Your task to perform on an android device: See recent photos Image 0: 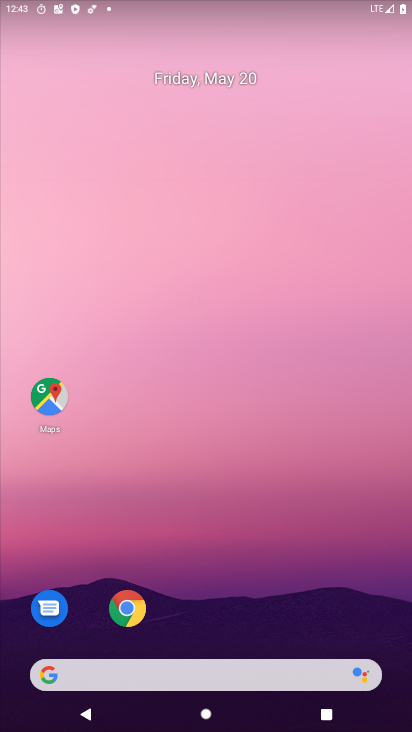
Step 0: drag from (340, 623) to (322, 192)
Your task to perform on an android device: See recent photos Image 1: 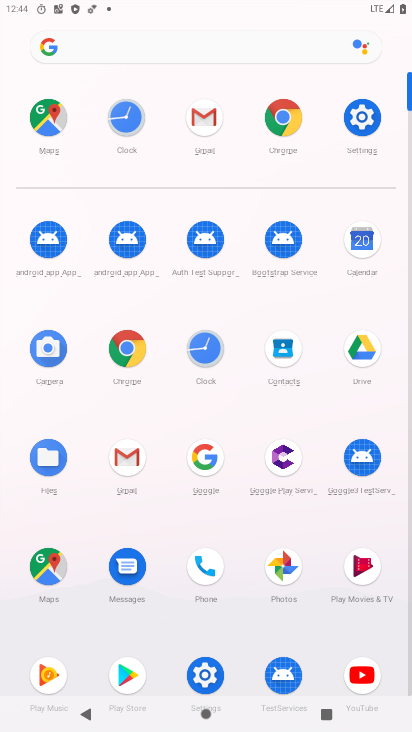
Step 1: click (276, 573)
Your task to perform on an android device: See recent photos Image 2: 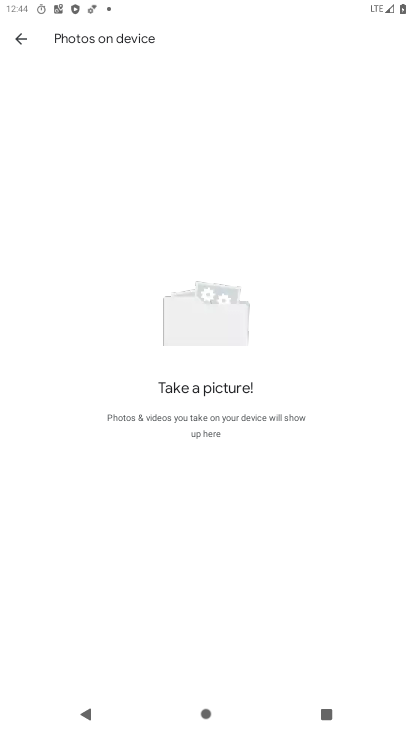
Step 2: click (18, 42)
Your task to perform on an android device: See recent photos Image 3: 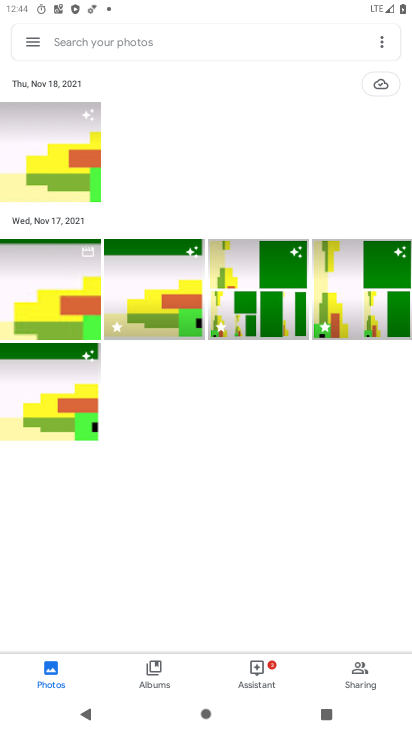
Step 3: task complete